Your task to perform on an android device: toggle javascript in the chrome app Image 0: 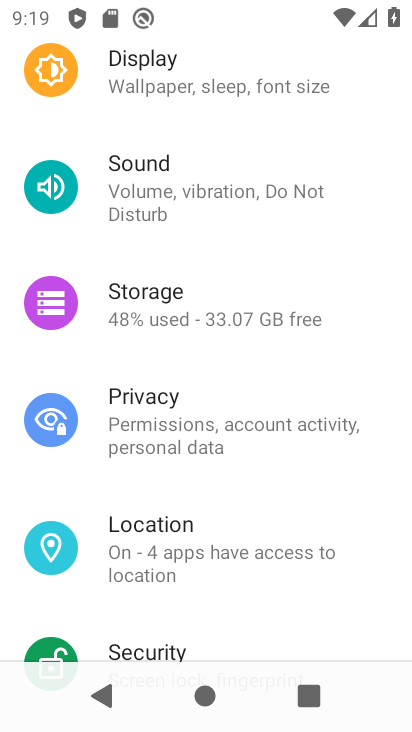
Step 0: press back button
Your task to perform on an android device: toggle javascript in the chrome app Image 1: 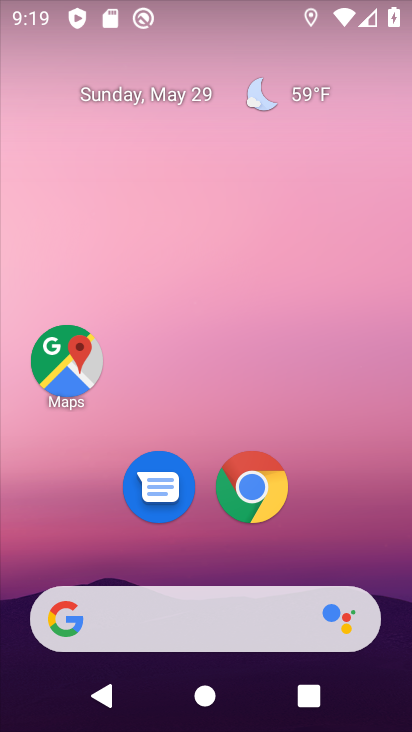
Step 1: click (251, 487)
Your task to perform on an android device: toggle javascript in the chrome app Image 2: 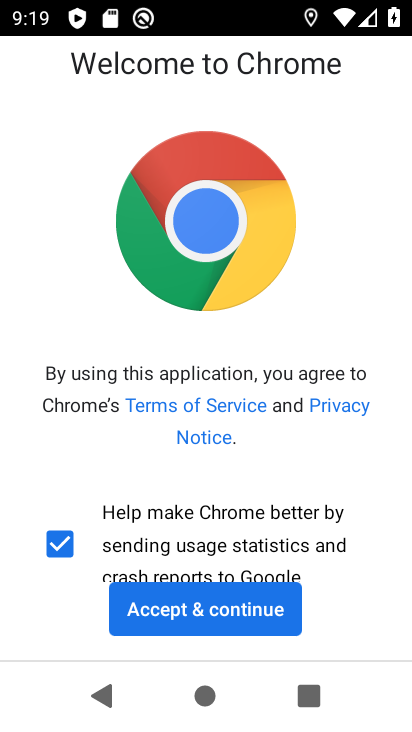
Step 2: click (209, 610)
Your task to perform on an android device: toggle javascript in the chrome app Image 3: 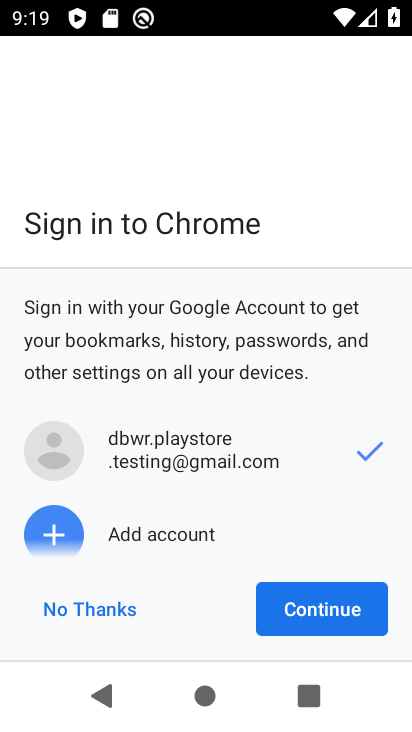
Step 3: click (334, 609)
Your task to perform on an android device: toggle javascript in the chrome app Image 4: 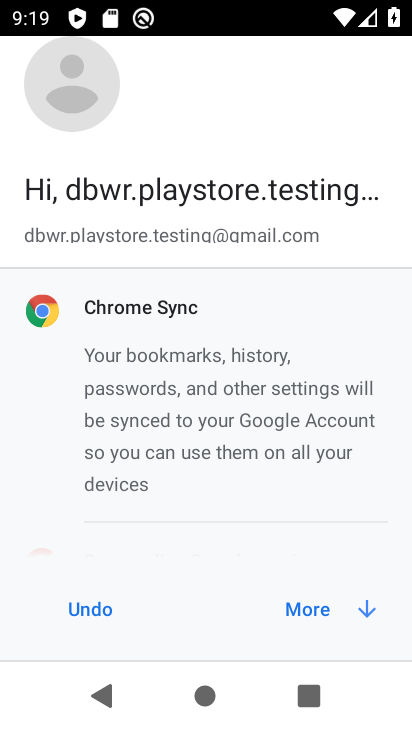
Step 4: click (310, 601)
Your task to perform on an android device: toggle javascript in the chrome app Image 5: 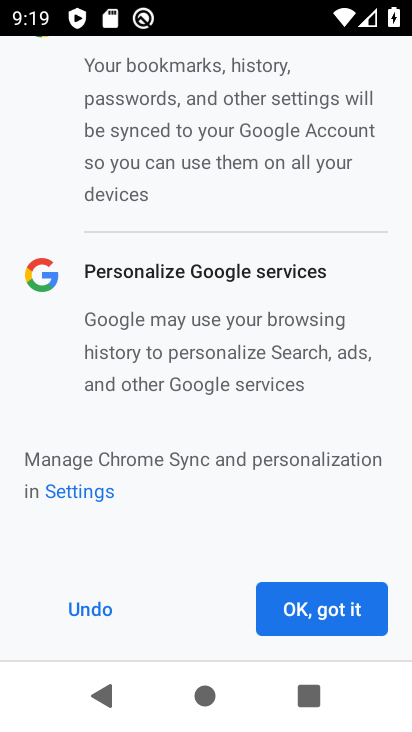
Step 5: click (310, 601)
Your task to perform on an android device: toggle javascript in the chrome app Image 6: 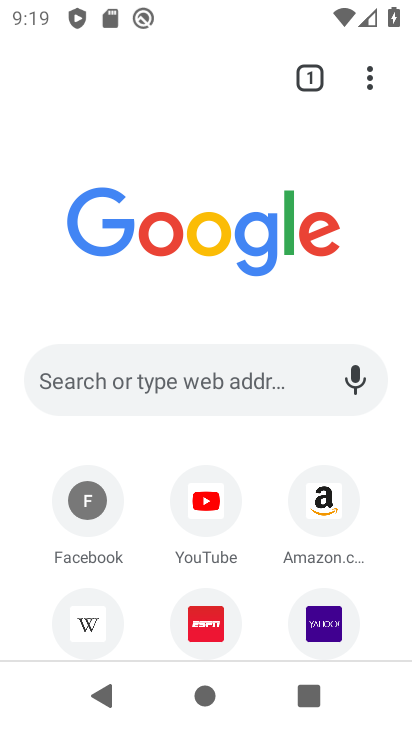
Step 6: click (371, 78)
Your task to perform on an android device: toggle javascript in the chrome app Image 7: 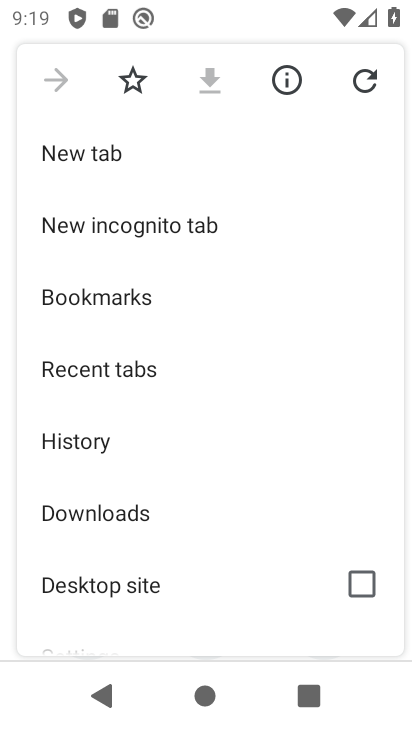
Step 7: drag from (190, 550) to (164, 415)
Your task to perform on an android device: toggle javascript in the chrome app Image 8: 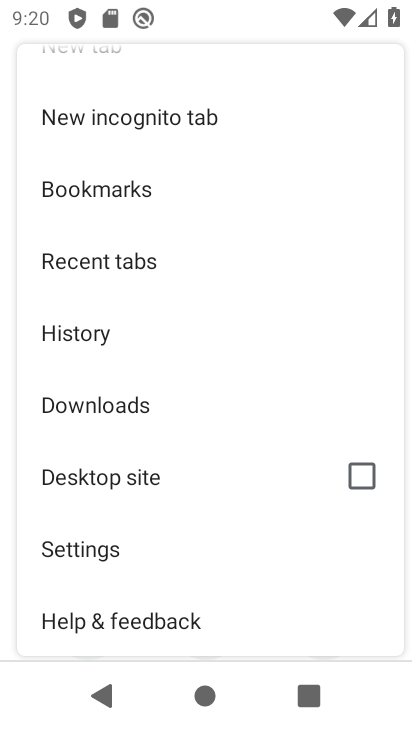
Step 8: click (75, 542)
Your task to perform on an android device: toggle javascript in the chrome app Image 9: 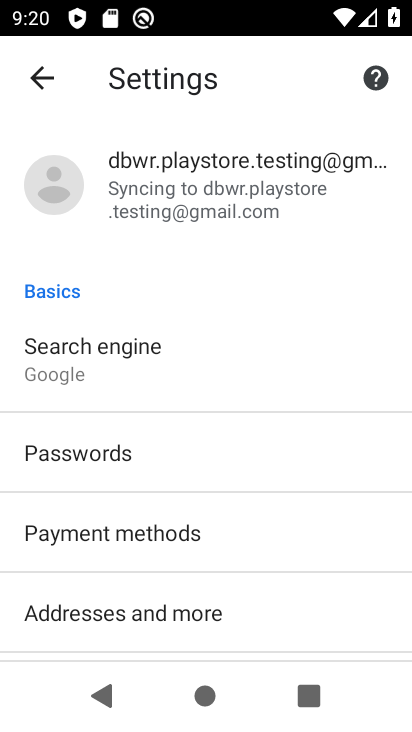
Step 9: drag from (169, 580) to (179, 481)
Your task to perform on an android device: toggle javascript in the chrome app Image 10: 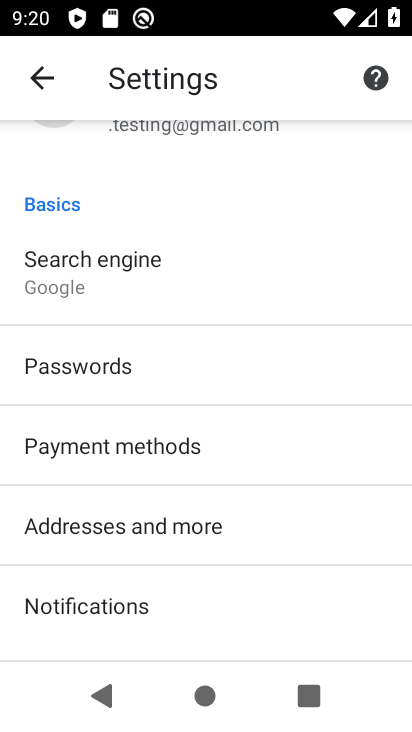
Step 10: drag from (181, 598) to (222, 492)
Your task to perform on an android device: toggle javascript in the chrome app Image 11: 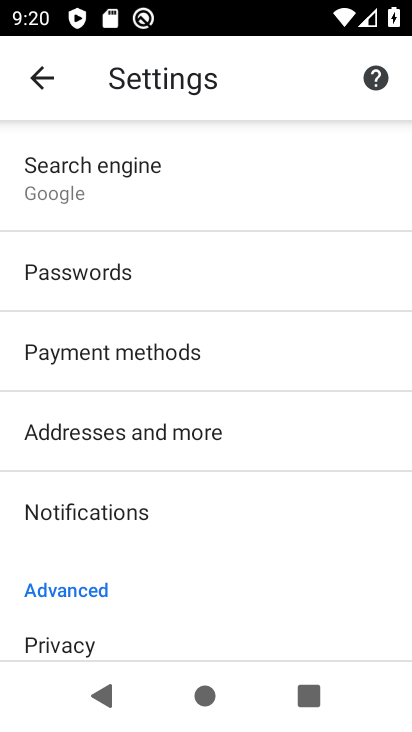
Step 11: drag from (173, 587) to (229, 481)
Your task to perform on an android device: toggle javascript in the chrome app Image 12: 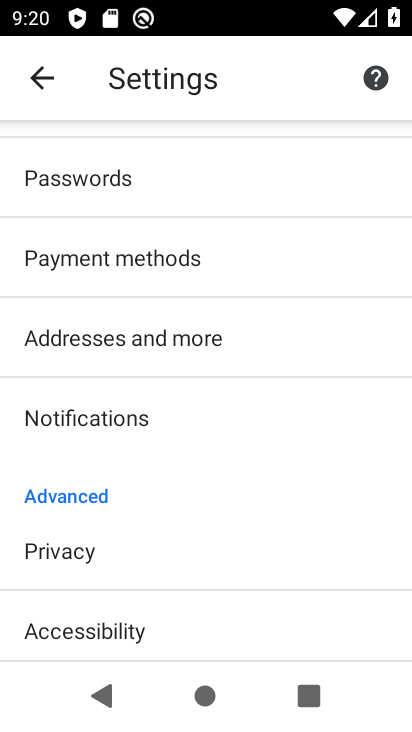
Step 12: drag from (179, 620) to (225, 541)
Your task to perform on an android device: toggle javascript in the chrome app Image 13: 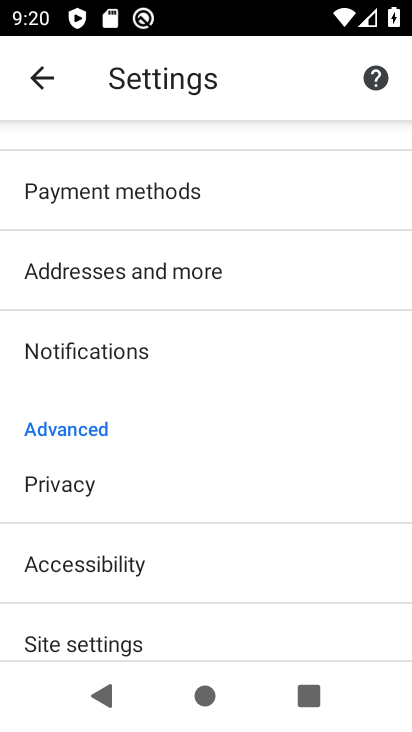
Step 13: drag from (161, 635) to (211, 534)
Your task to perform on an android device: toggle javascript in the chrome app Image 14: 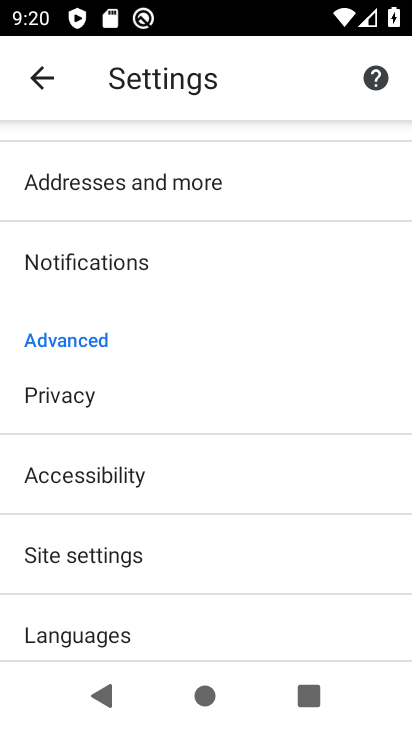
Step 14: drag from (159, 639) to (216, 523)
Your task to perform on an android device: toggle javascript in the chrome app Image 15: 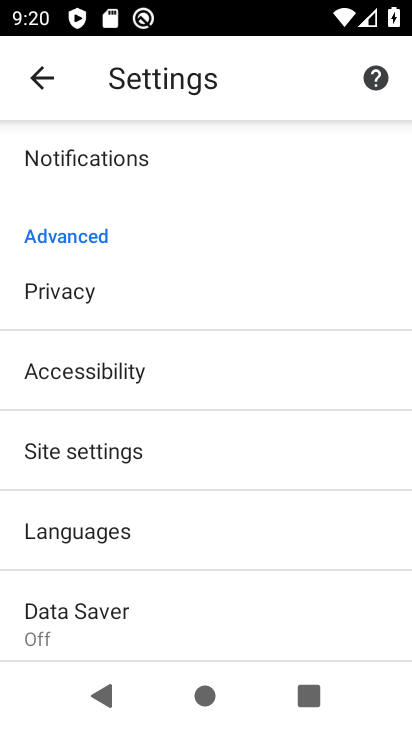
Step 15: click (100, 446)
Your task to perform on an android device: toggle javascript in the chrome app Image 16: 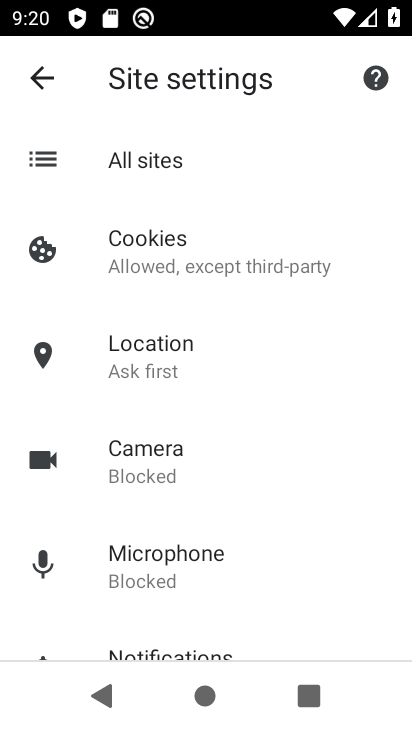
Step 16: drag from (162, 406) to (232, 298)
Your task to perform on an android device: toggle javascript in the chrome app Image 17: 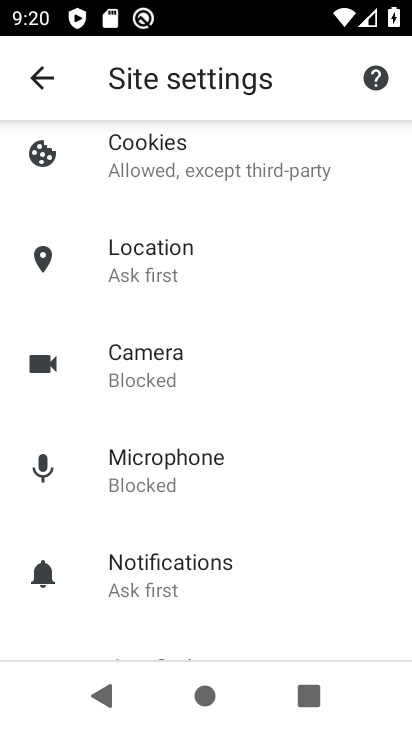
Step 17: drag from (147, 430) to (229, 327)
Your task to perform on an android device: toggle javascript in the chrome app Image 18: 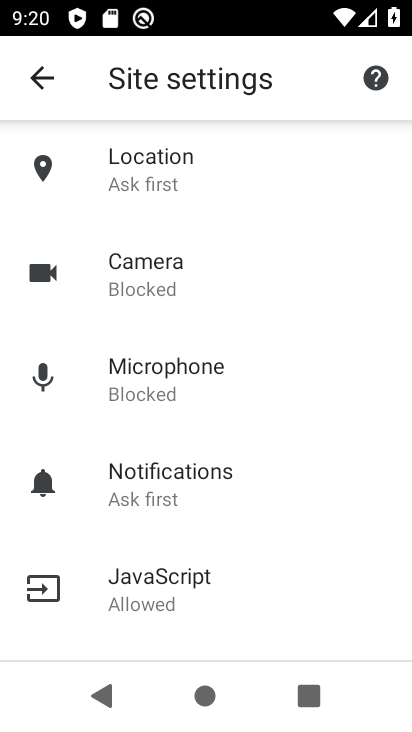
Step 18: drag from (145, 509) to (253, 395)
Your task to perform on an android device: toggle javascript in the chrome app Image 19: 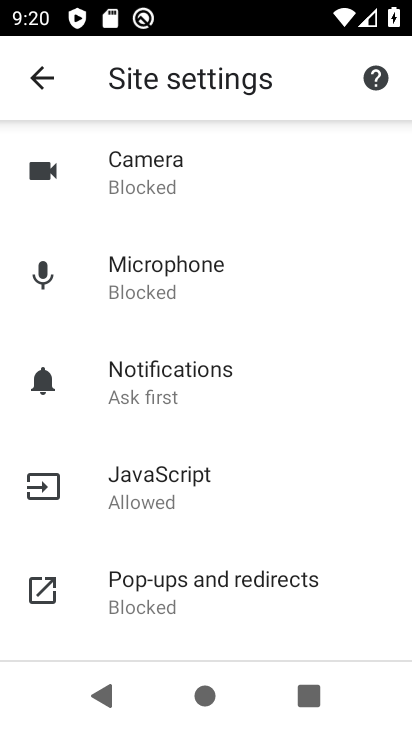
Step 19: click (189, 464)
Your task to perform on an android device: toggle javascript in the chrome app Image 20: 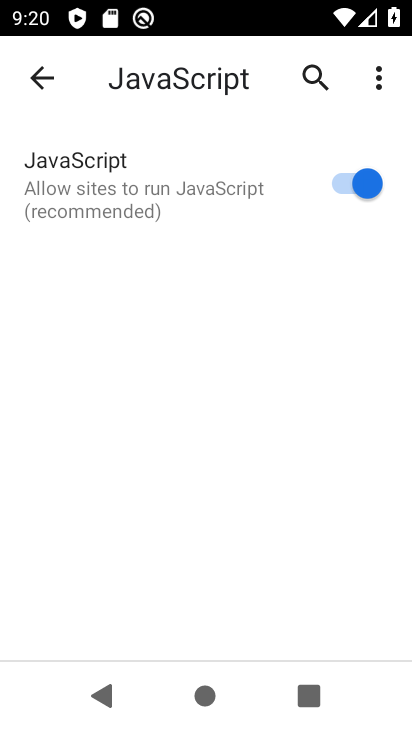
Step 20: click (350, 187)
Your task to perform on an android device: toggle javascript in the chrome app Image 21: 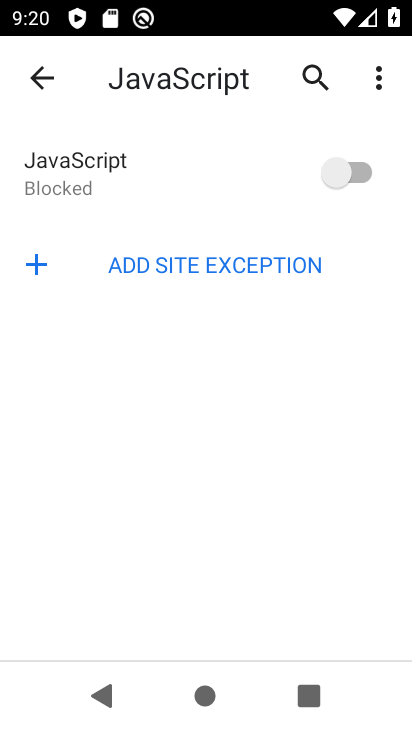
Step 21: task complete